Your task to perform on an android device: Open Youtube and go to "Your channel" Image 0: 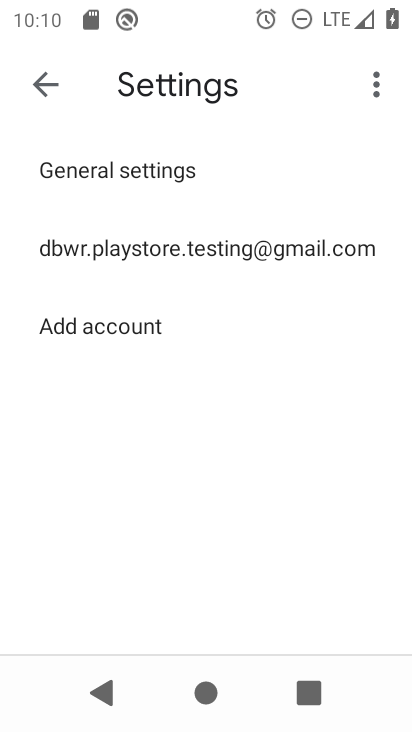
Step 0: press home button
Your task to perform on an android device: Open Youtube and go to "Your channel" Image 1: 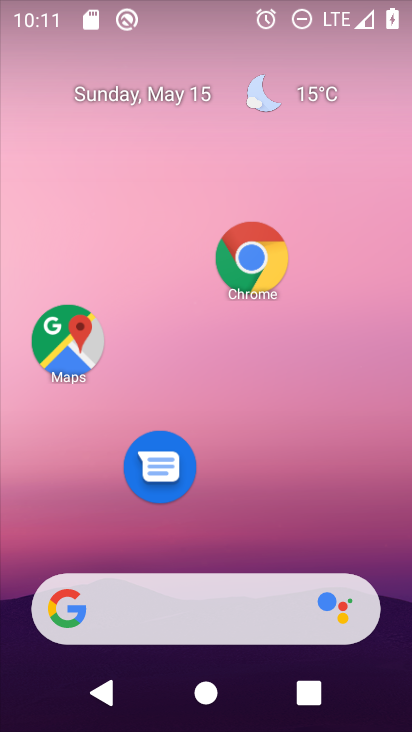
Step 1: drag from (233, 537) to (219, 315)
Your task to perform on an android device: Open Youtube and go to "Your channel" Image 2: 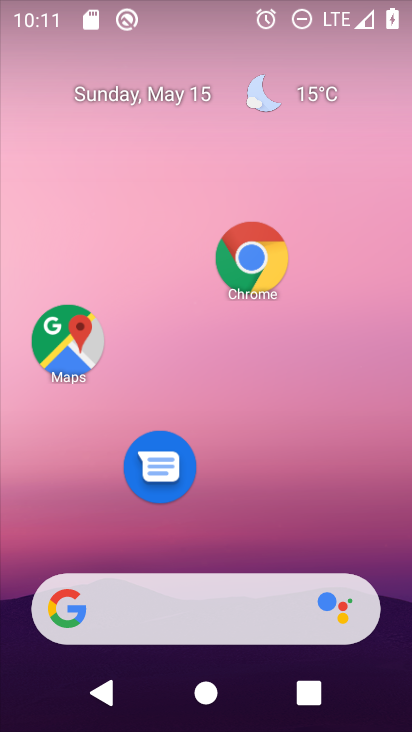
Step 2: drag from (209, 530) to (405, 181)
Your task to perform on an android device: Open Youtube and go to "Your channel" Image 3: 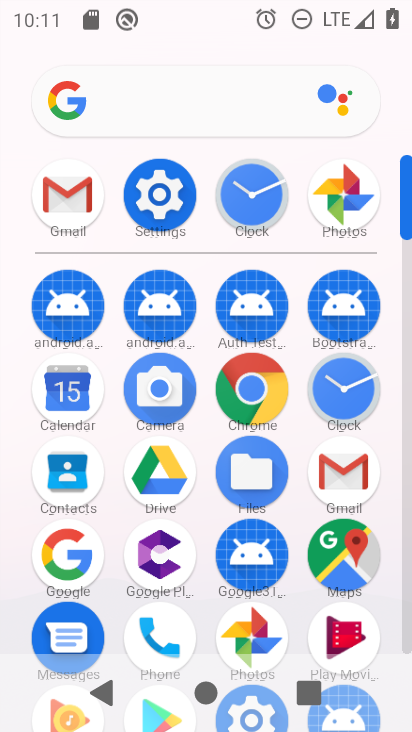
Step 3: drag from (195, 581) to (288, 27)
Your task to perform on an android device: Open Youtube and go to "Your channel" Image 4: 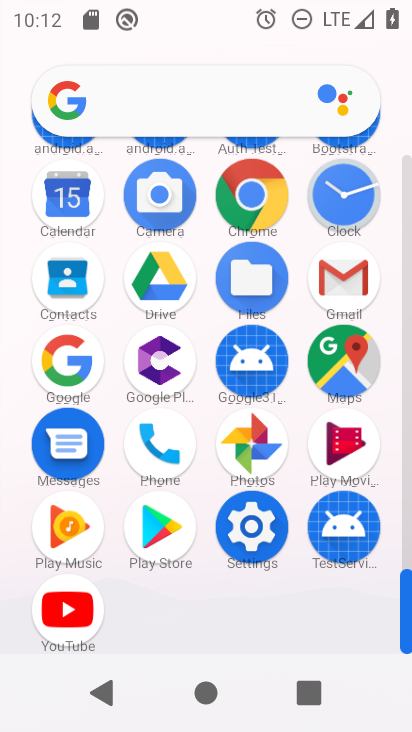
Step 4: click (50, 579)
Your task to perform on an android device: Open Youtube and go to "Your channel" Image 5: 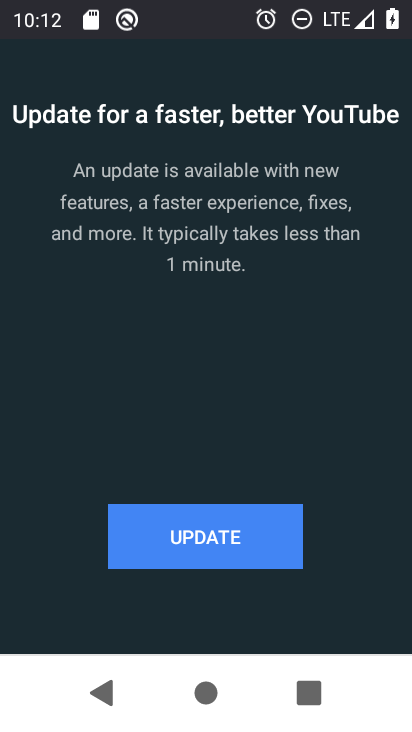
Step 5: click (241, 556)
Your task to perform on an android device: Open Youtube and go to "Your channel" Image 6: 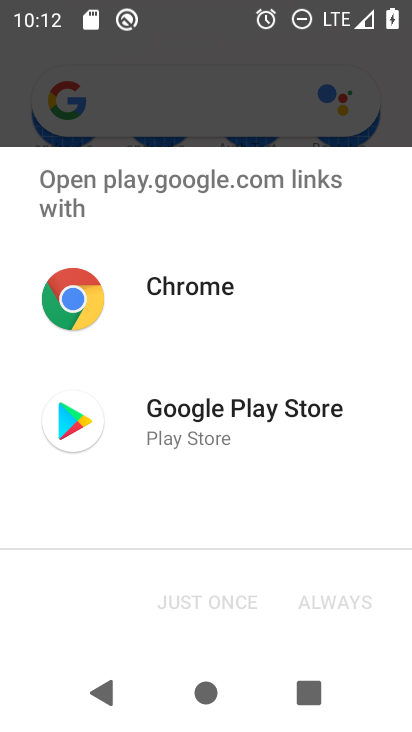
Step 6: click (249, 466)
Your task to perform on an android device: Open Youtube and go to "Your channel" Image 7: 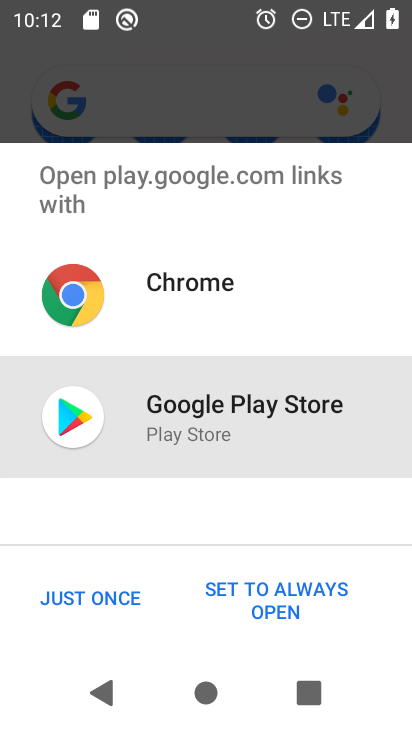
Step 7: click (103, 598)
Your task to perform on an android device: Open Youtube and go to "Your channel" Image 8: 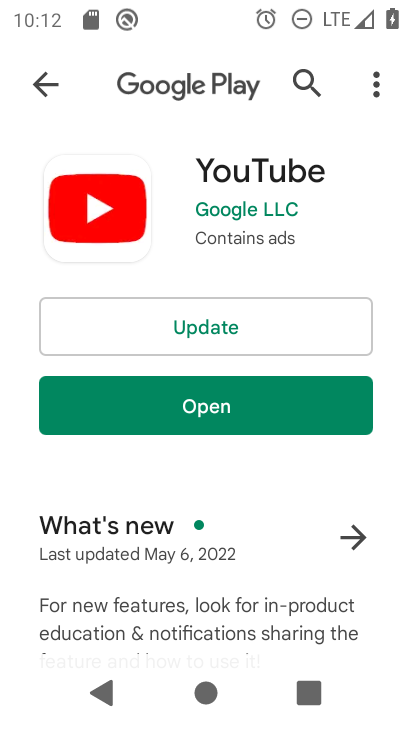
Step 8: click (239, 325)
Your task to perform on an android device: Open Youtube and go to "Your channel" Image 9: 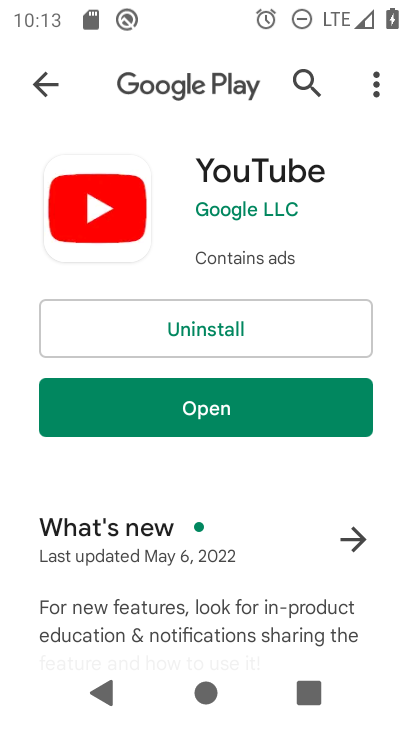
Step 9: click (225, 428)
Your task to perform on an android device: Open Youtube and go to "Your channel" Image 10: 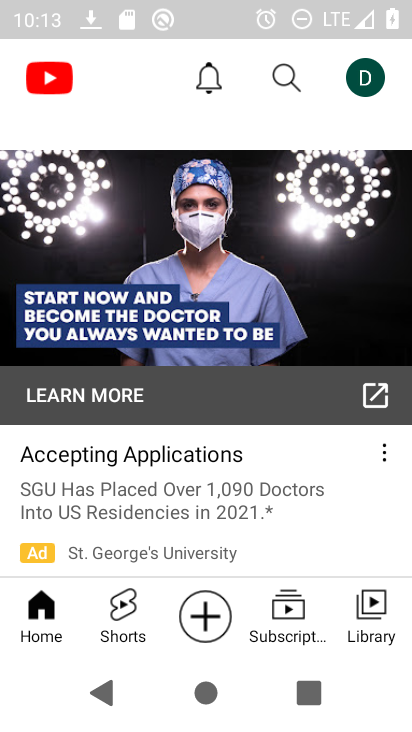
Step 10: click (294, 83)
Your task to perform on an android device: Open Youtube and go to "Your channel" Image 11: 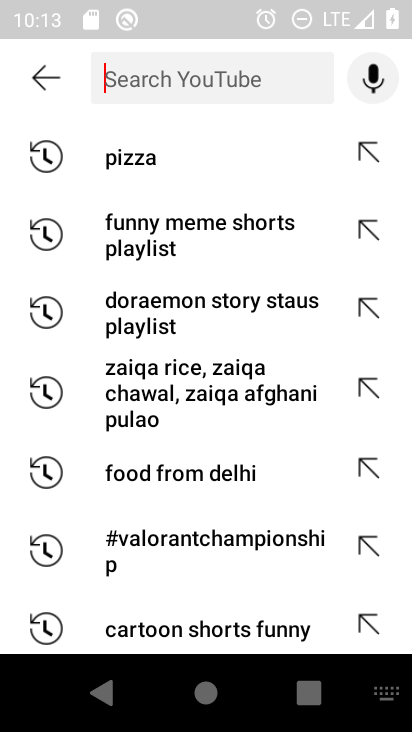
Step 11: type "your channel"
Your task to perform on an android device: Open Youtube and go to "Your channel" Image 12: 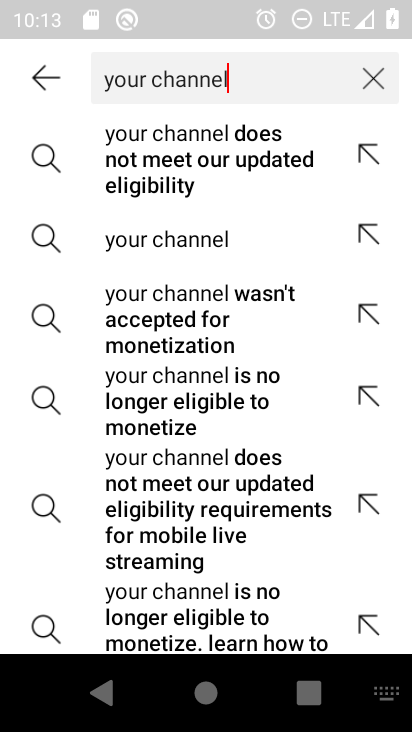
Step 12: click (204, 242)
Your task to perform on an android device: Open Youtube and go to "Your channel" Image 13: 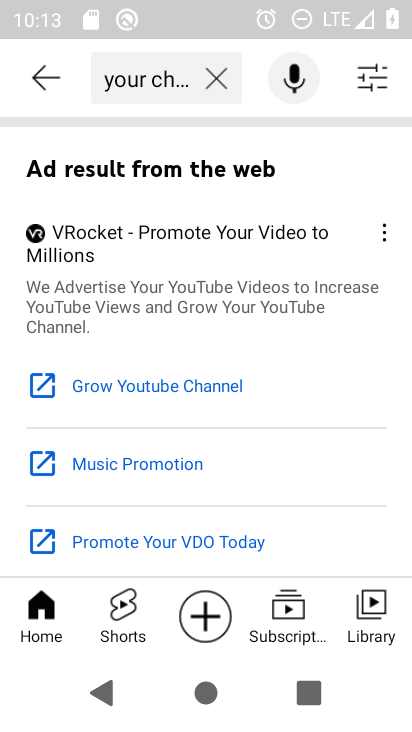
Step 13: task complete